Your task to perform on an android device: turn on notifications settings in the gmail app Image 0: 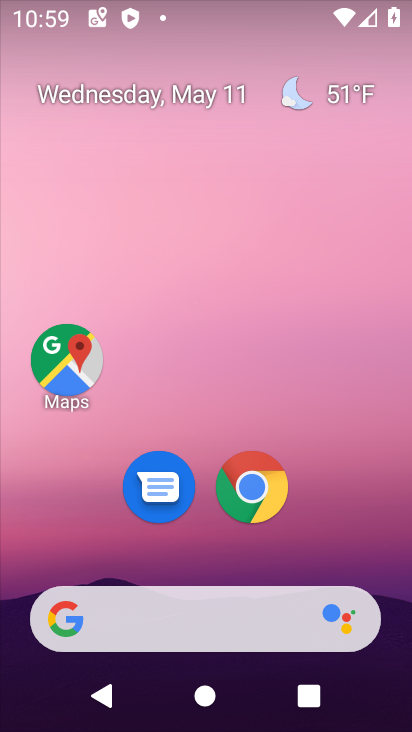
Step 0: drag from (384, 498) to (313, 180)
Your task to perform on an android device: turn on notifications settings in the gmail app Image 1: 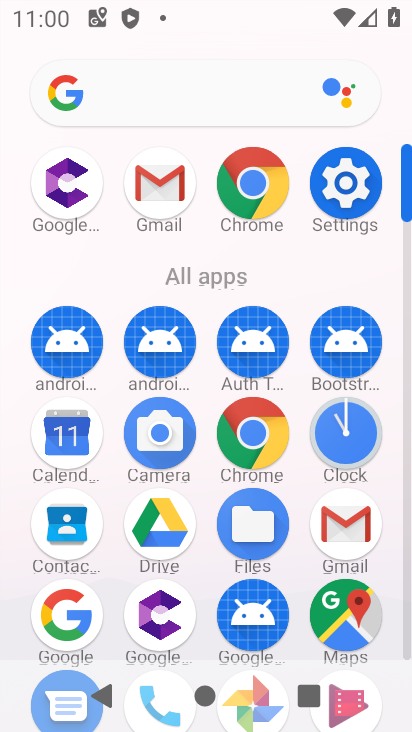
Step 1: click (356, 539)
Your task to perform on an android device: turn on notifications settings in the gmail app Image 2: 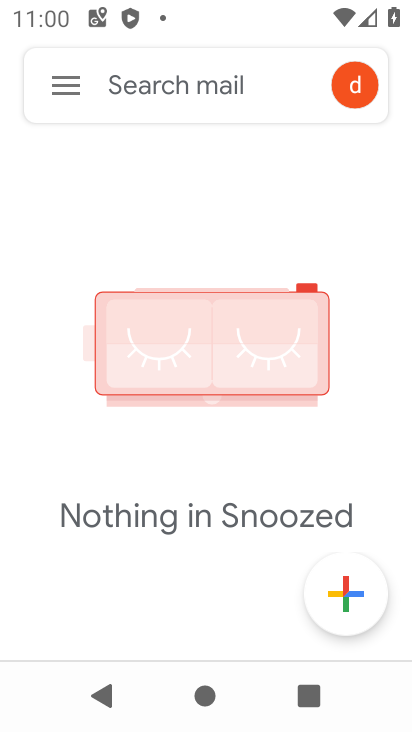
Step 2: click (59, 100)
Your task to perform on an android device: turn on notifications settings in the gmail app Image 3: 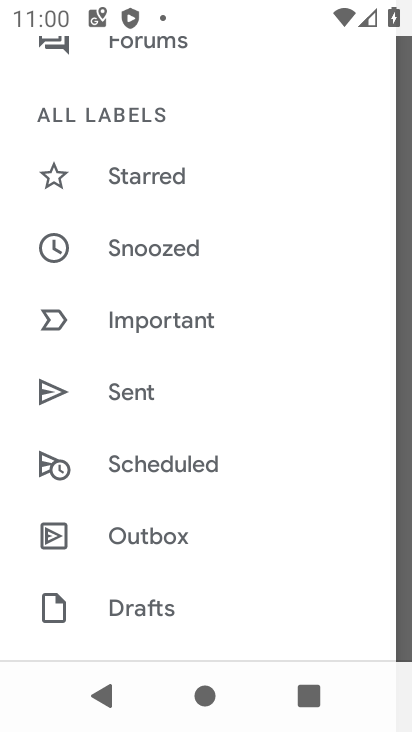
Step 3: drag from (262, 529) to (224, 239)
Your task to perform on an android device: turn on notifications settings in the gmail app Image 4: 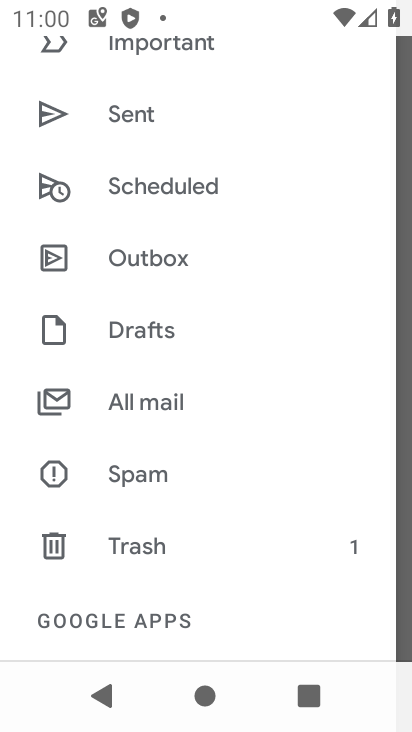
Step 4: drag from (266, 568) to (233, 319)
Your task to perform on an android device: turn on notifications settings in the gmail app Image 5: 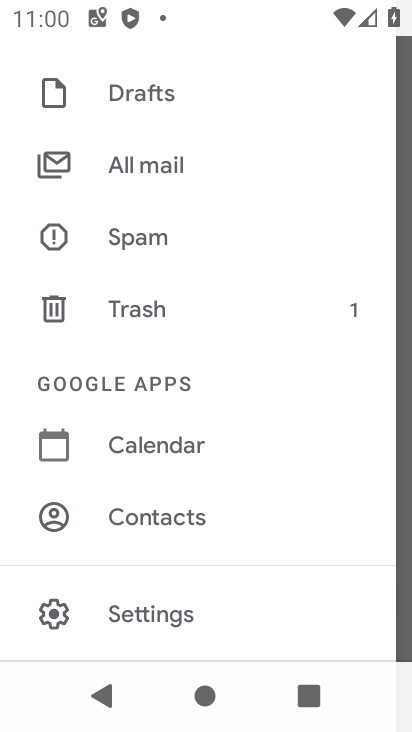
Step 5: click (245, 612)
Your task to perform on an android device: turn on notifications settings in the gmail app Image 6: 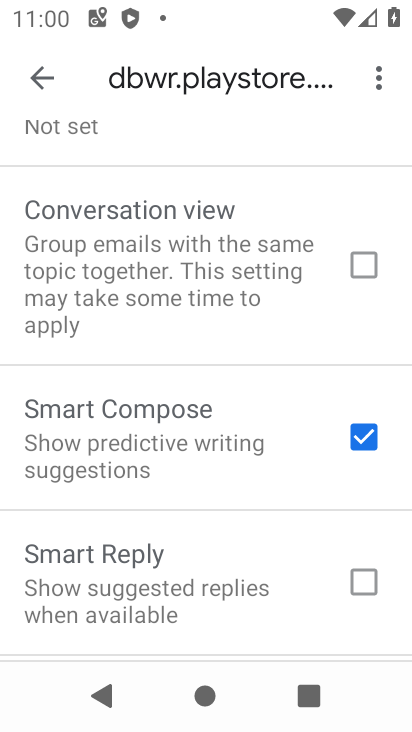
Step 6: drag from (230, 323) to (231, 476)
Your task to perform on an android device: turn on notifications settings in the gmail app Image 7: 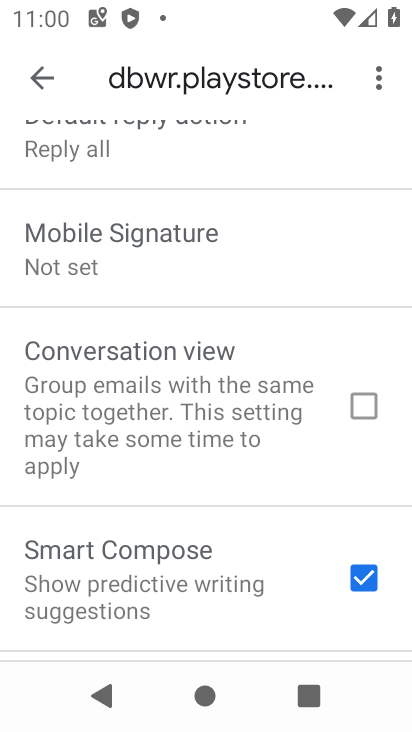
Step 7: drag from (167, 263) to (184, 509)
Your task to perform on an android device: turn on notifications settings in the gmail app Image 8: 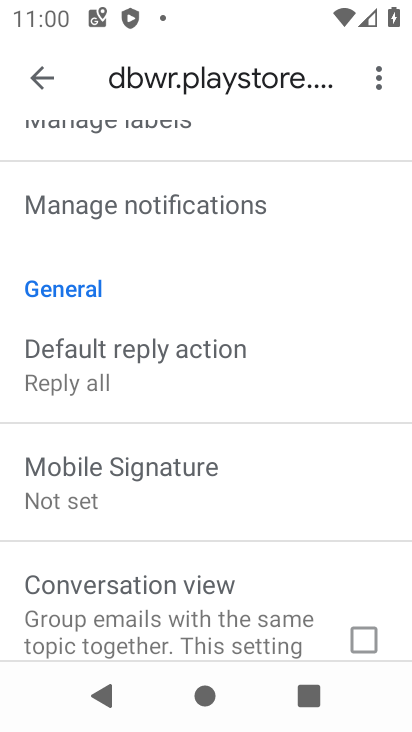
Step 8: click (147, 208)
Your task to perform on an android device: turn on notifications settings in the gmail app Image 9: 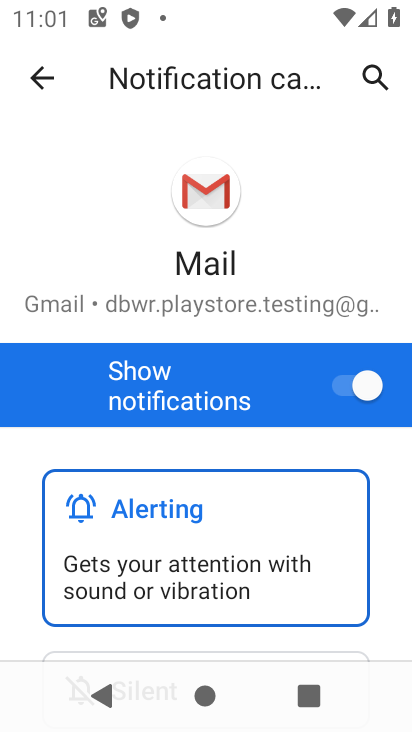
Step 9: task complete